Your task to perform on an android device: change alarm snooze length Image 0: 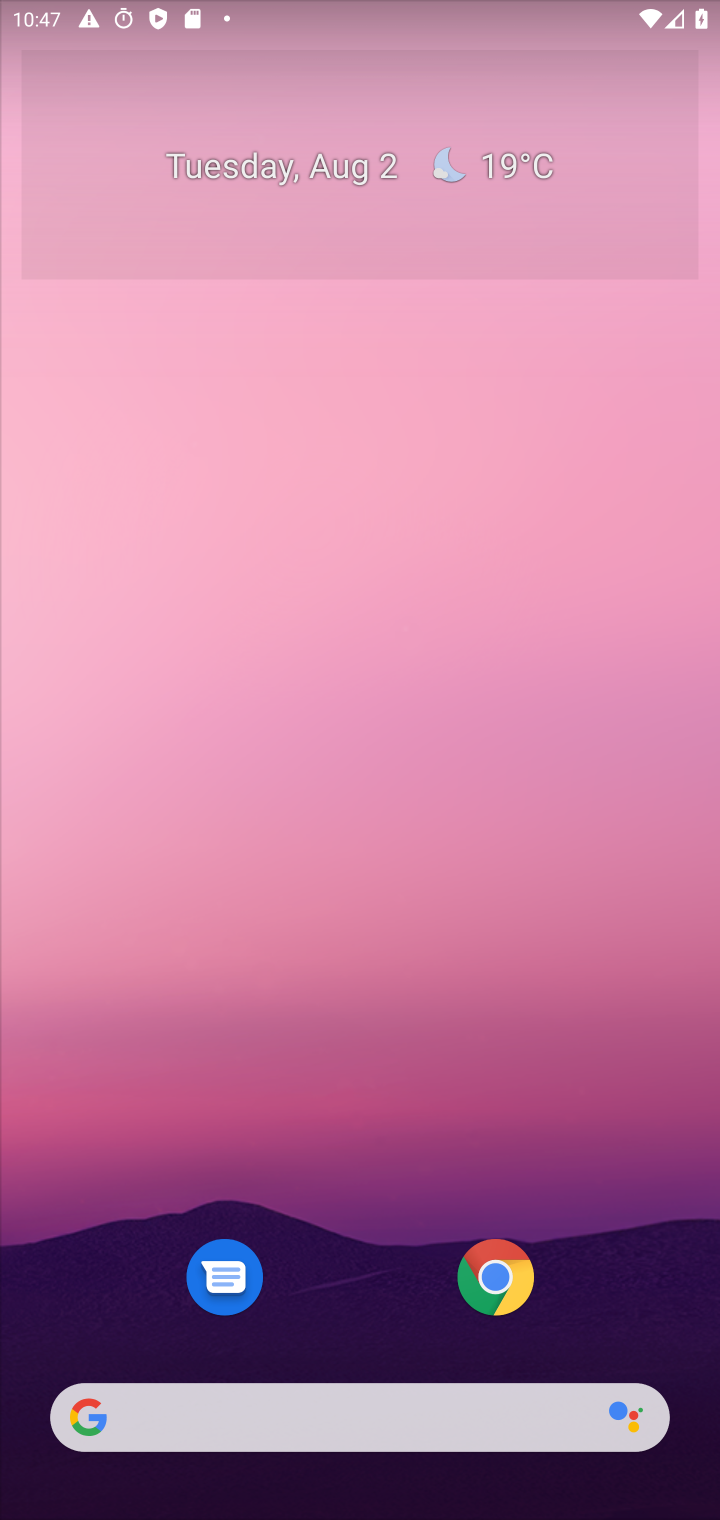
Step 0: press home button
Your task to perform on an android device: change alarm snooze length Image 1: 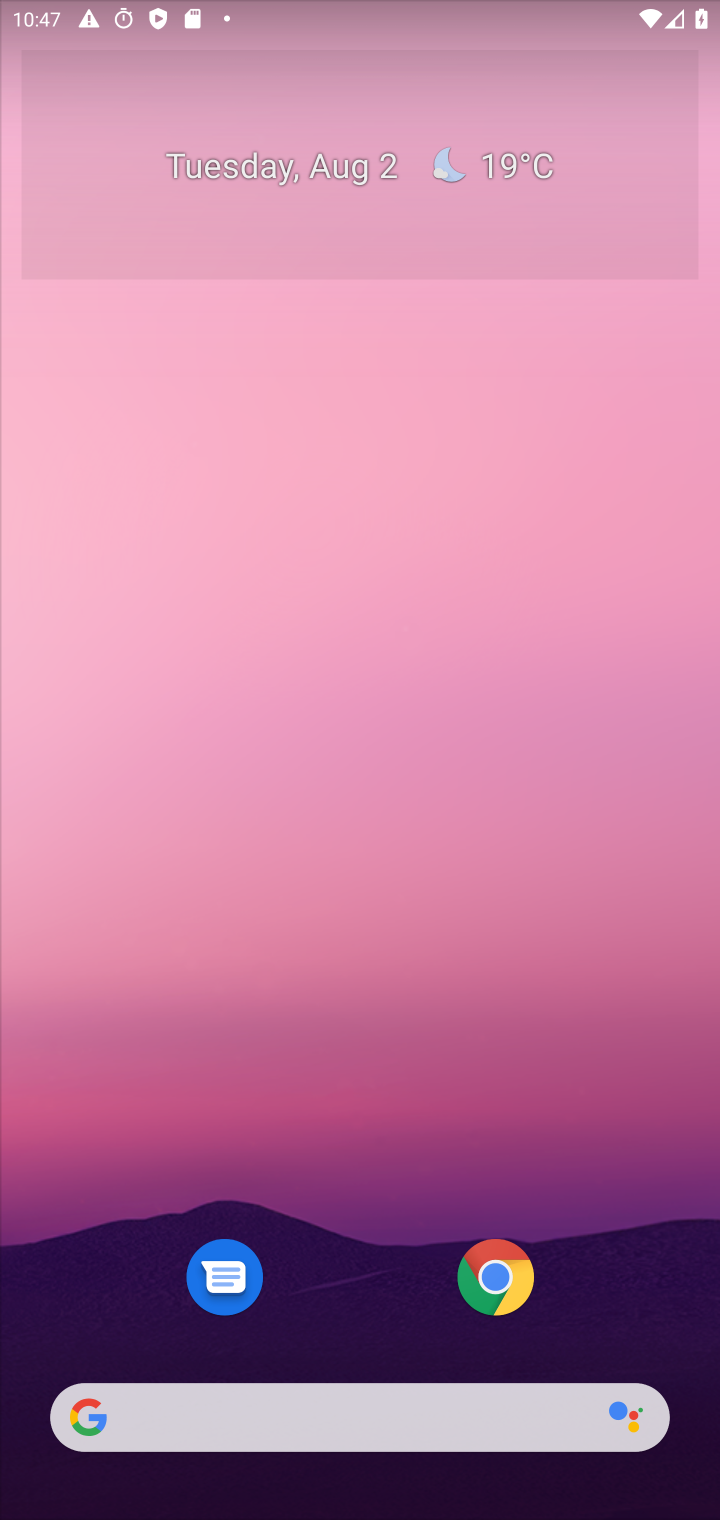
Step 1: drag from (354, 1253) to (491, 152)
Your task to perform on an android device: change alarm snooze length Image 2: 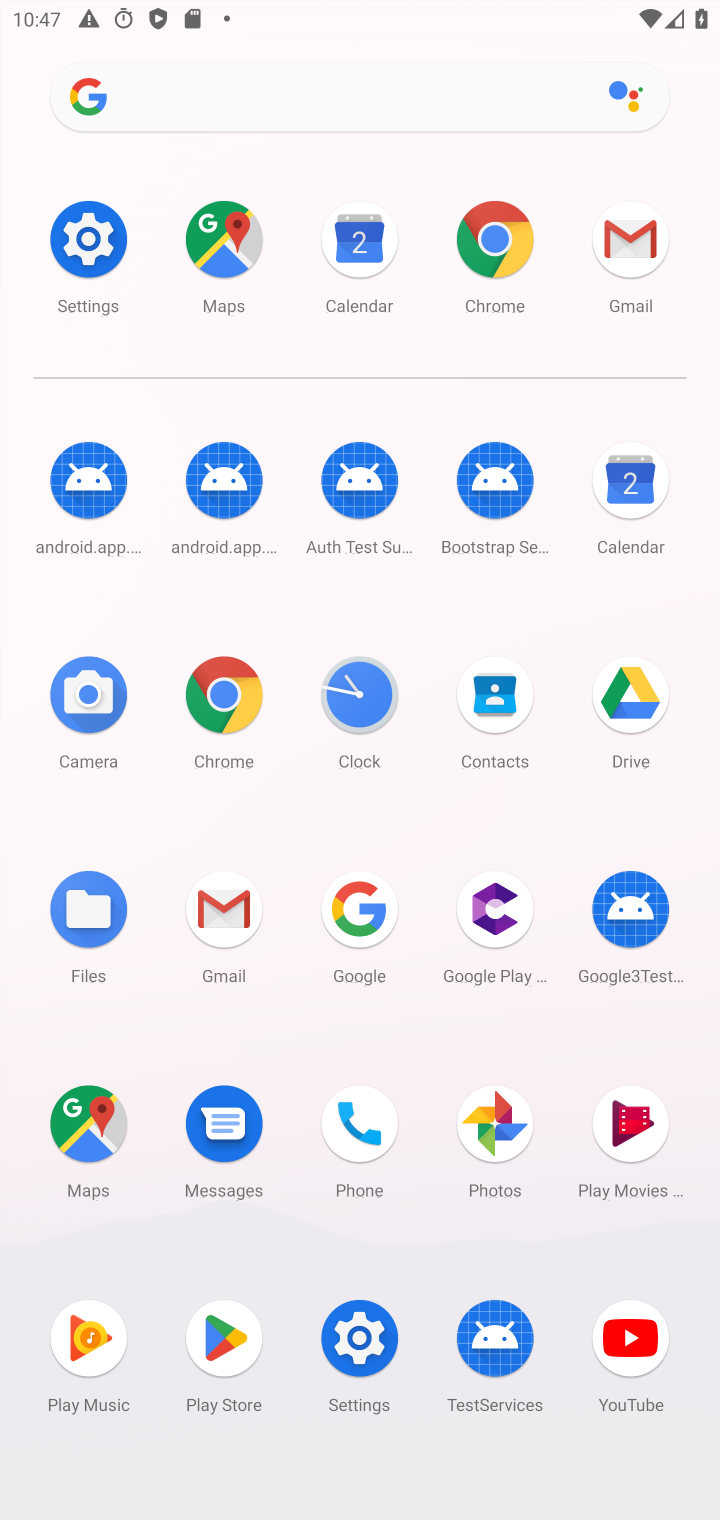
Step 2: click (358, 713)
Your task to perform on an android device: change alarm snooze length Image 3: 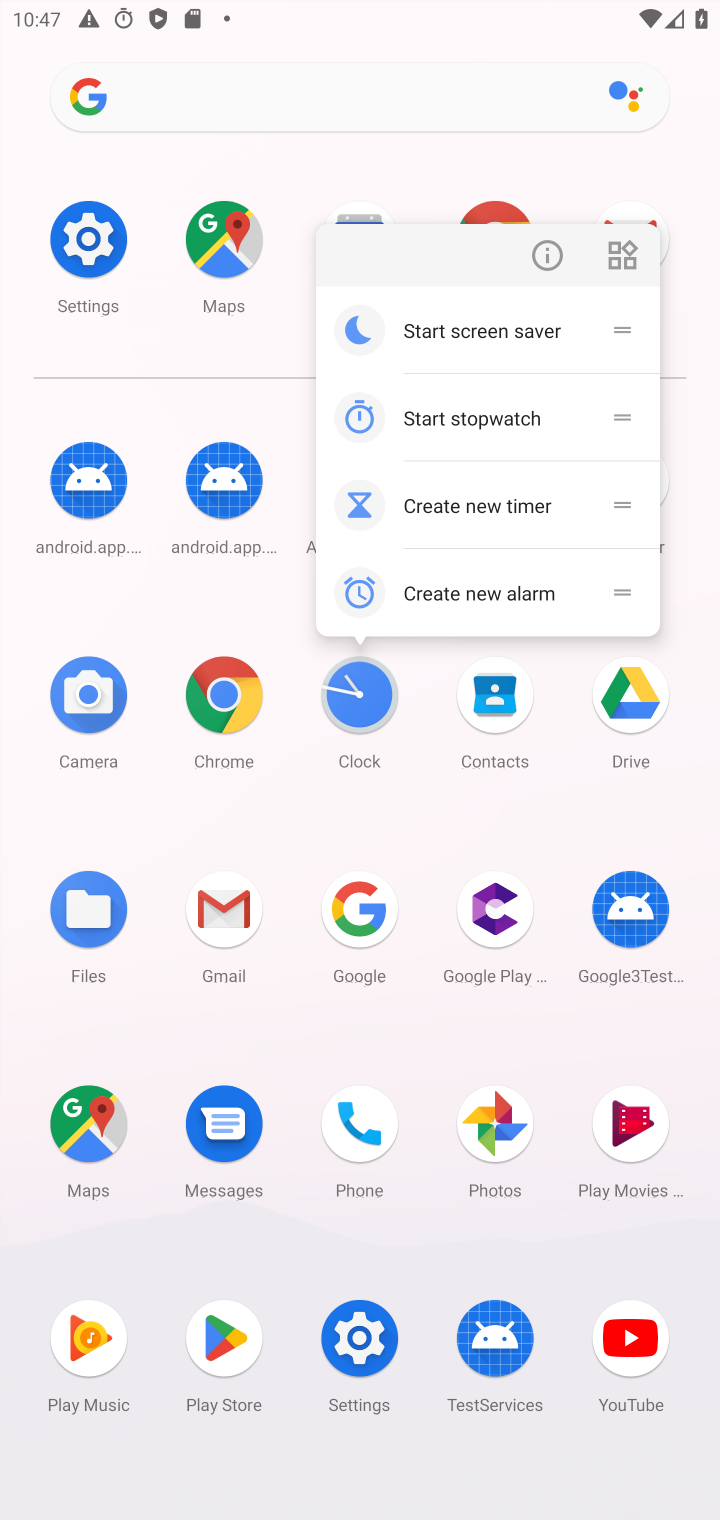
Step 3: click (372, 696)
Your task to perform on an android device: change alarm snooze length Image 4: 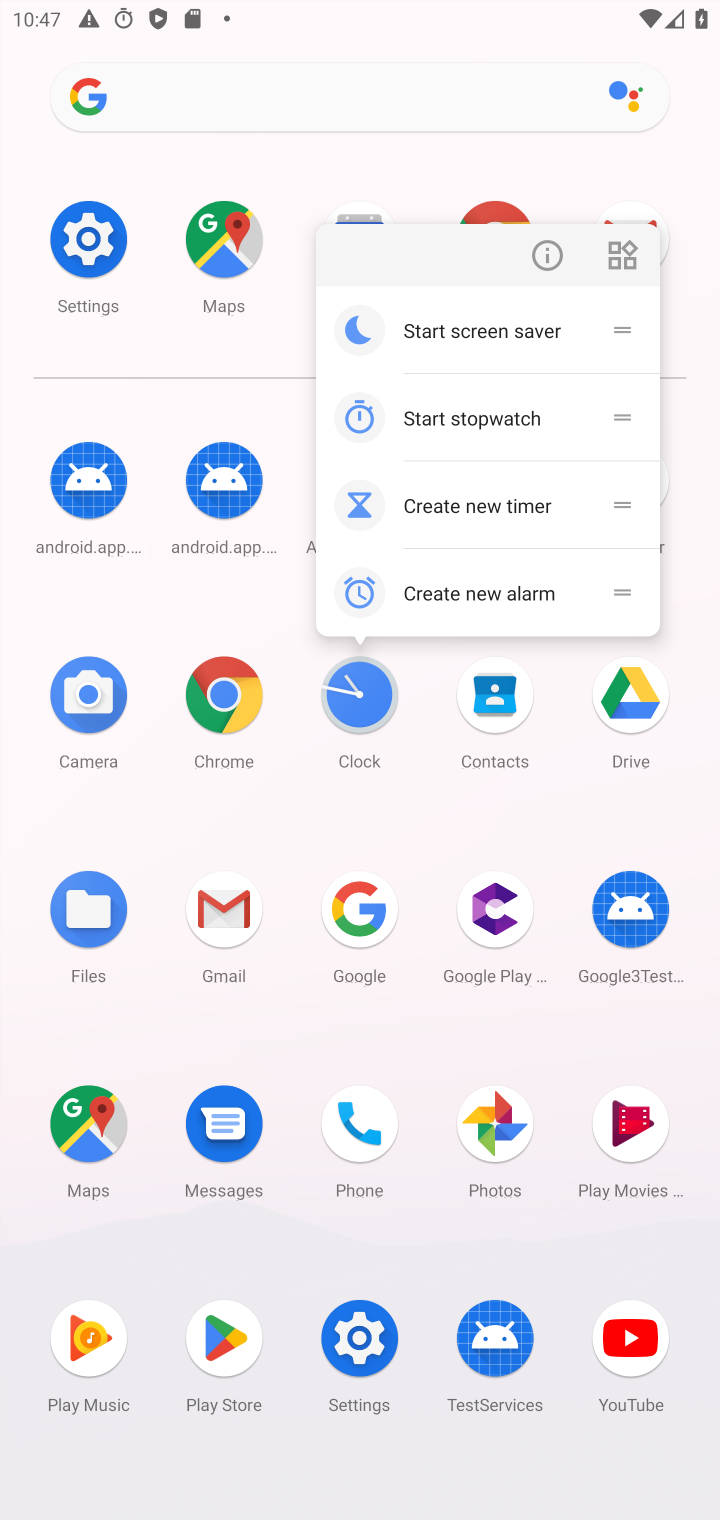
Step 4: click (370, 695)
Your task to perform on an android device: change alarm snooze length Image 5: 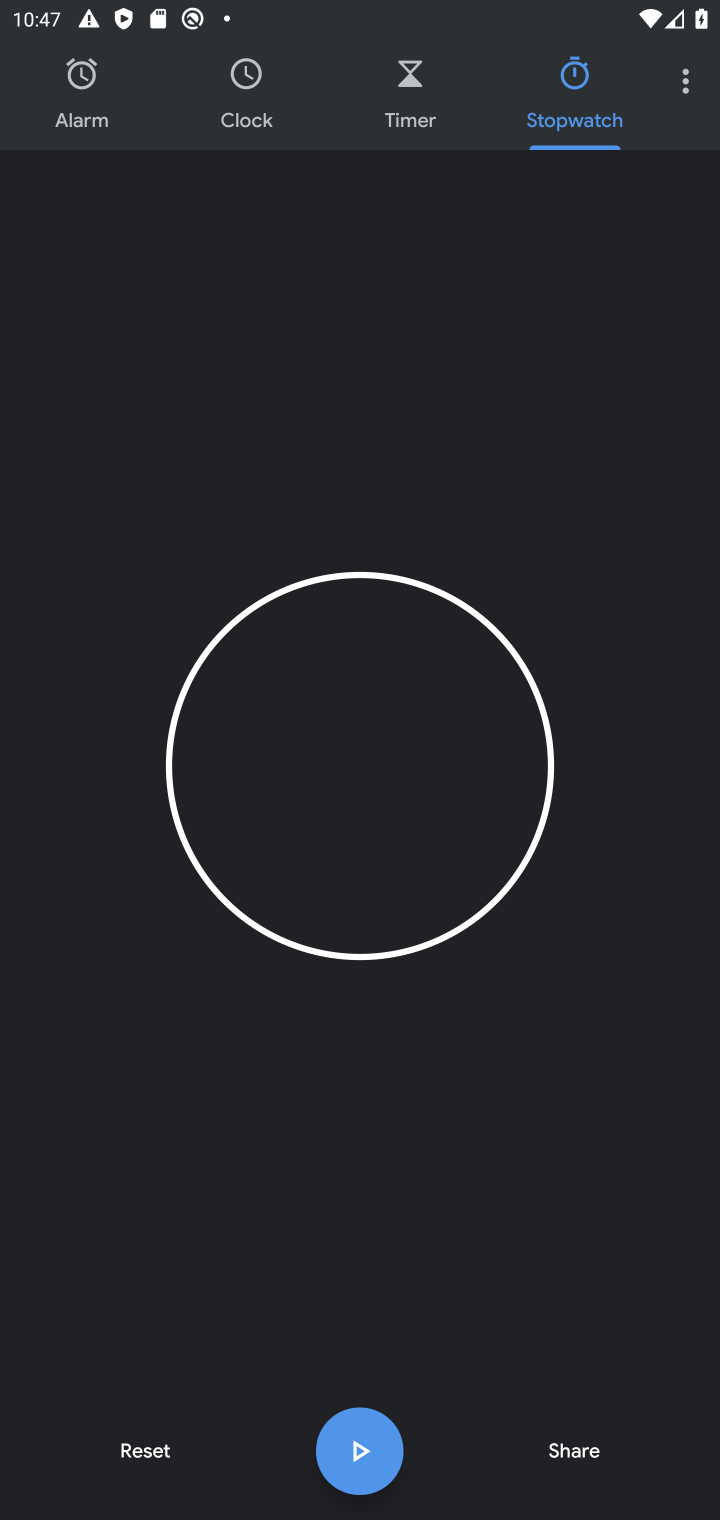
Step 5: click (676, 77)
Your task to perform on an android device: change alarm snooze length Image 6: 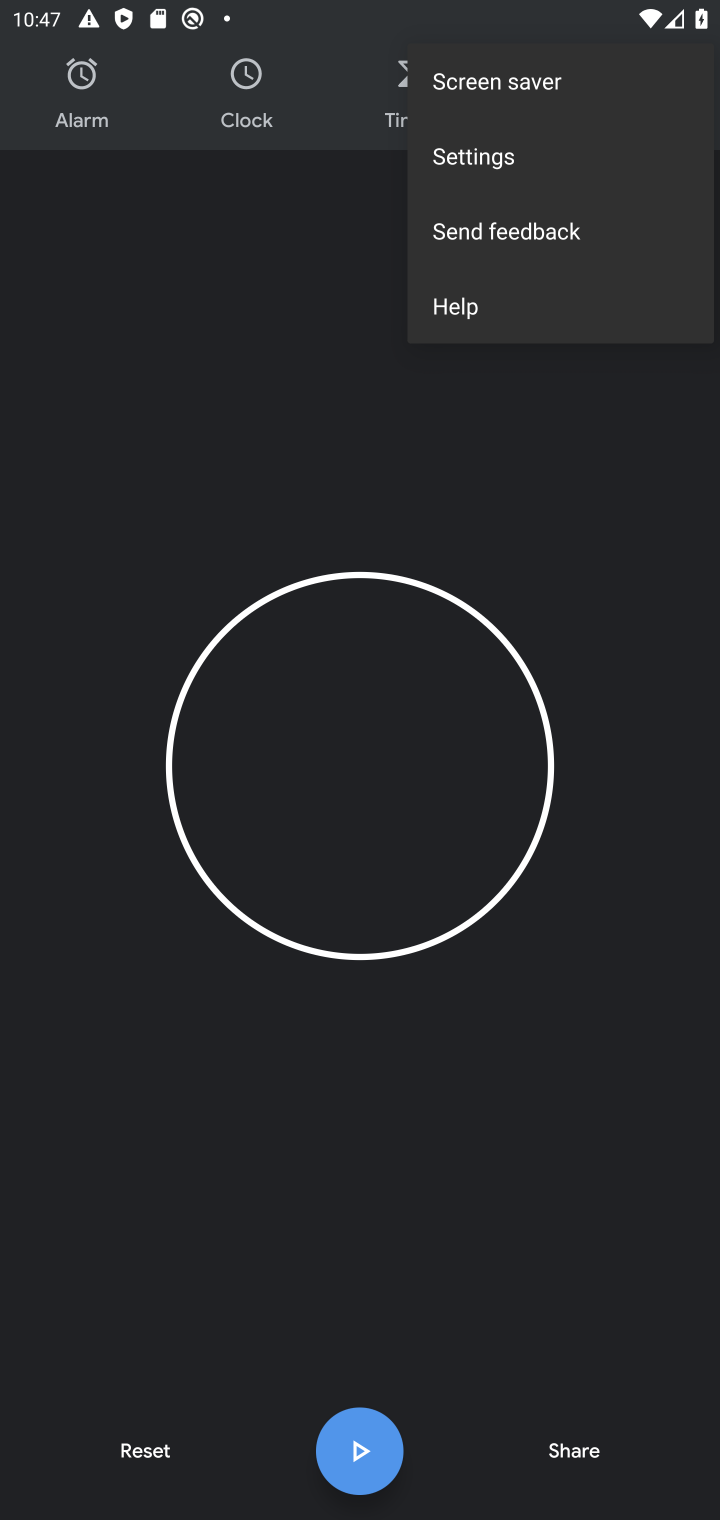
Step 6: click (481, 163)
Your task to perform on an android device: change alarm snooze length Image 7: 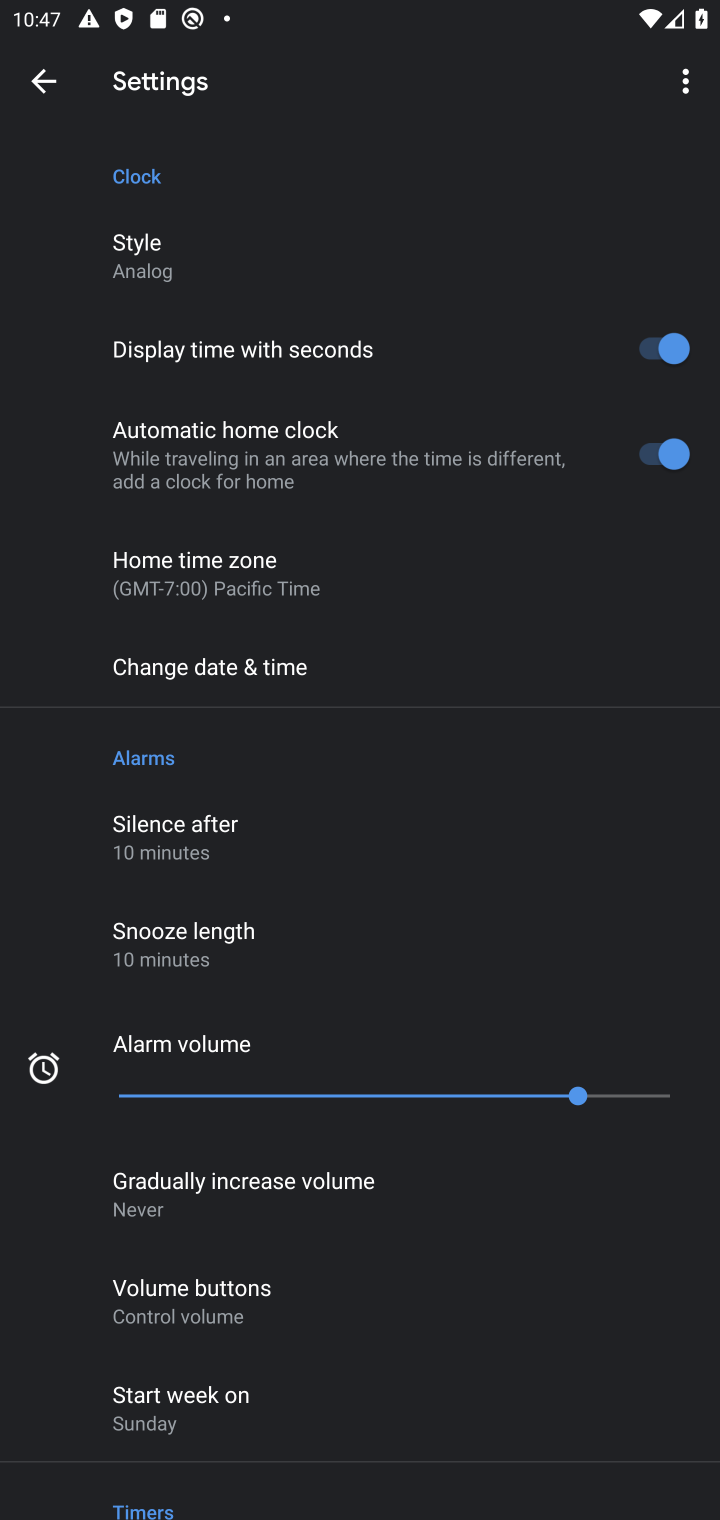
Step 7: click (233, 949)
Your task to perform on an android device: change alarm snooze length Image 8: 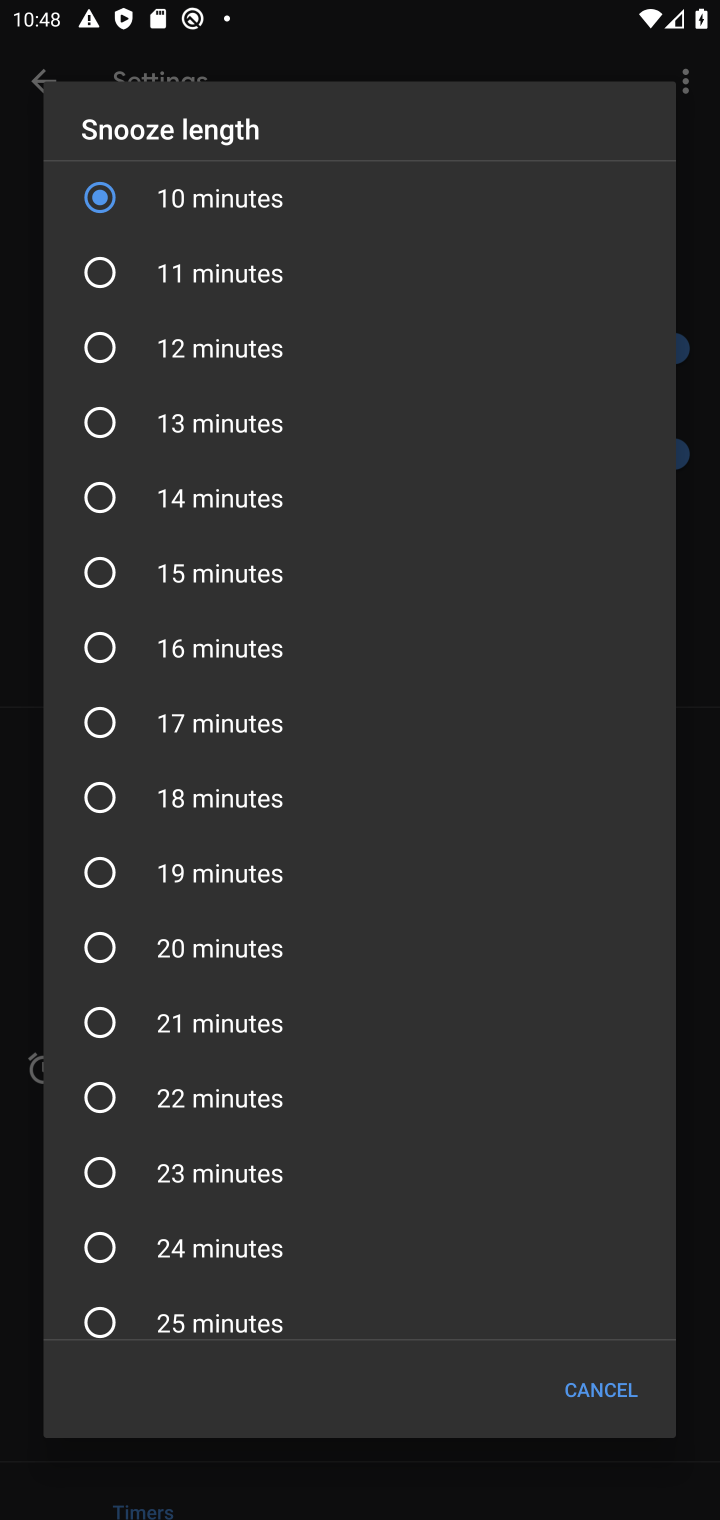
Step 8: click (97, 949)
Your task to perform on an android device: change alarm snooze length Image 9: 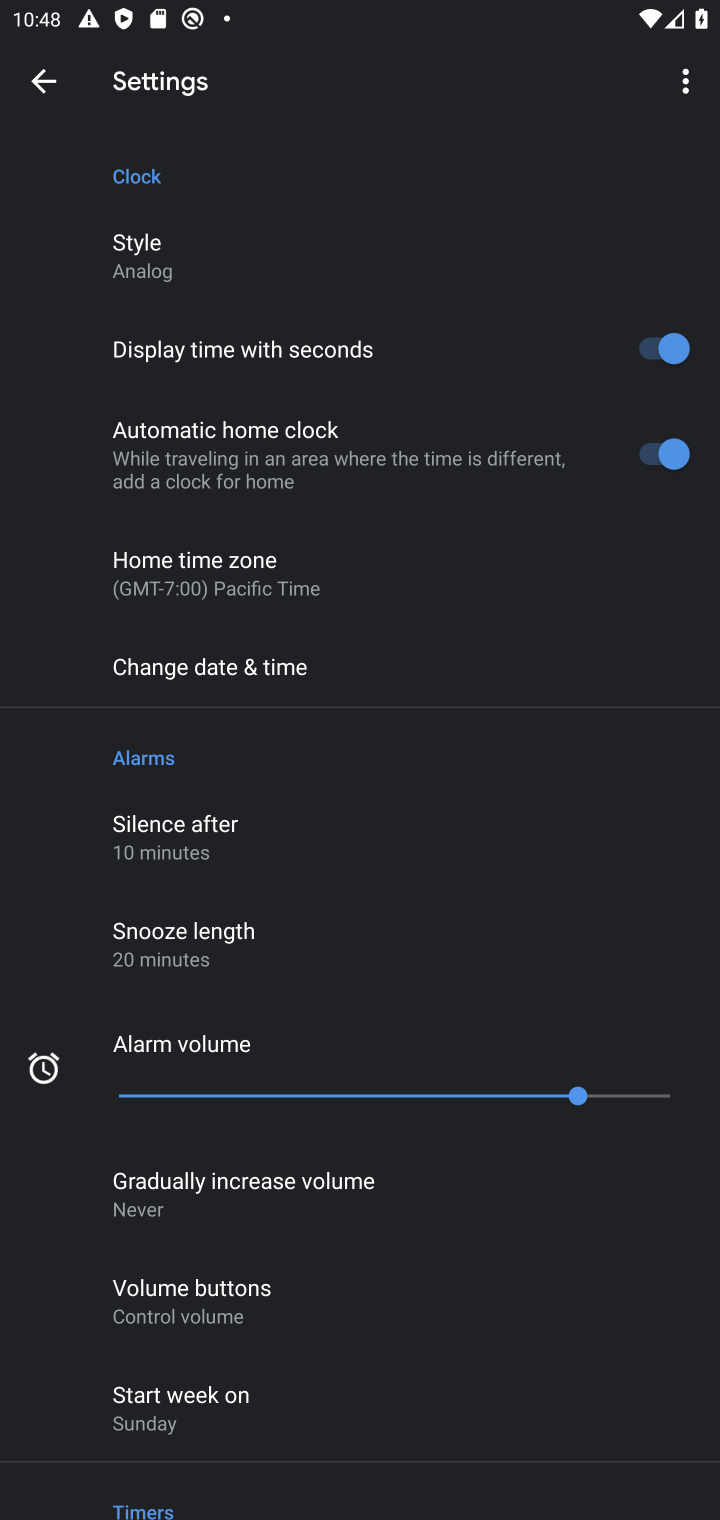
Step 9: task complete